Your task to perform on an android device: Open ESPN.com Image 0: 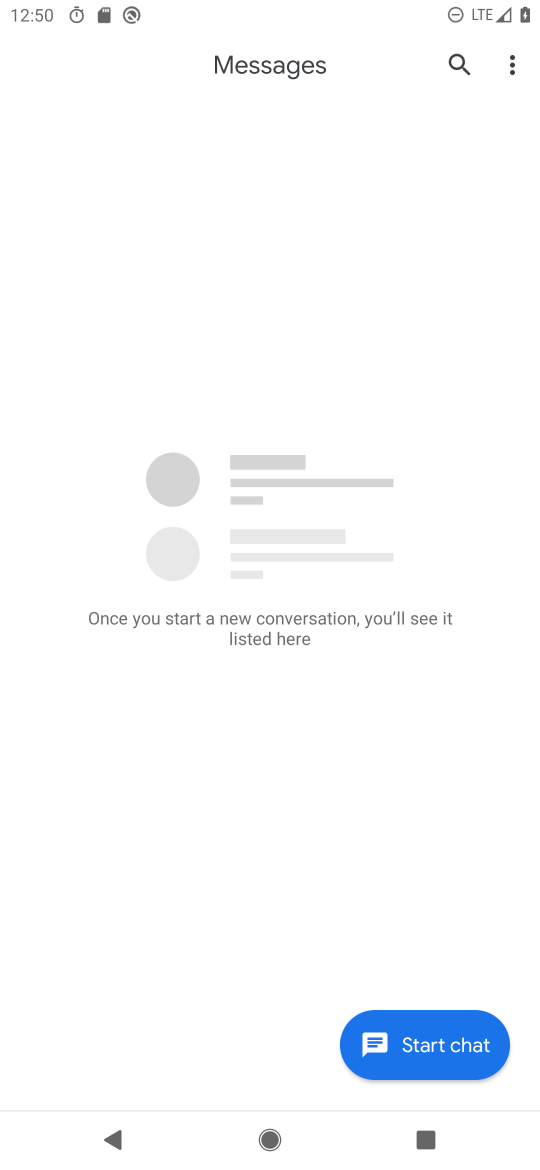
Step 0: press home button
Your task to perform on an android device: Open ESPN.com Image 1: 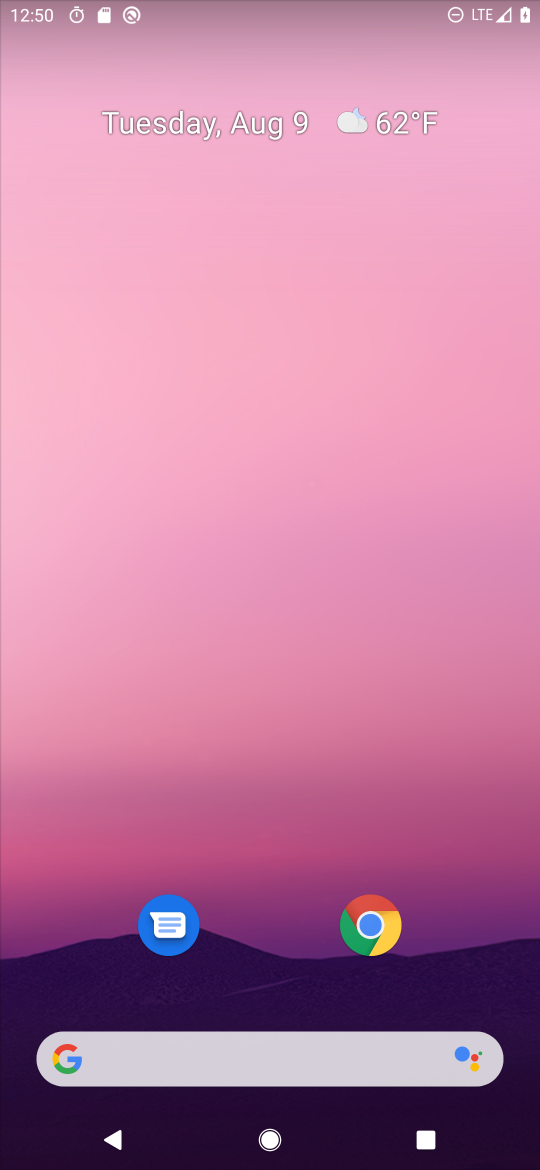
Step 1: drag from (347, 544) to (429, 45)
Your task to perform on an android device: Open ESPN.com Image 2: 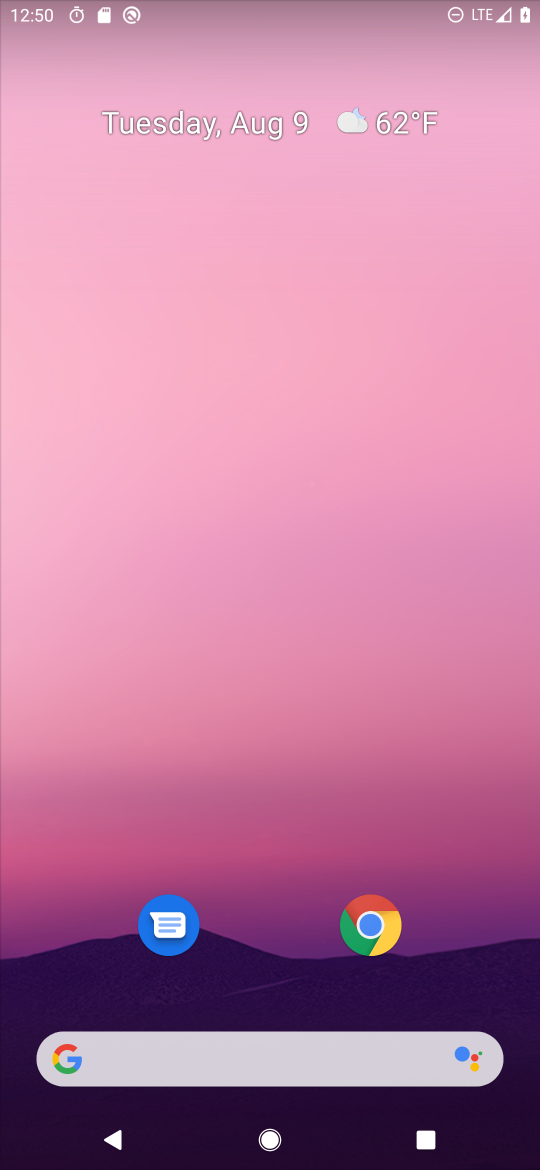
Step 2: drag from (245, 807) to (319, 209)
Your task to perform on an android device: Open ESPN.com Image 3: 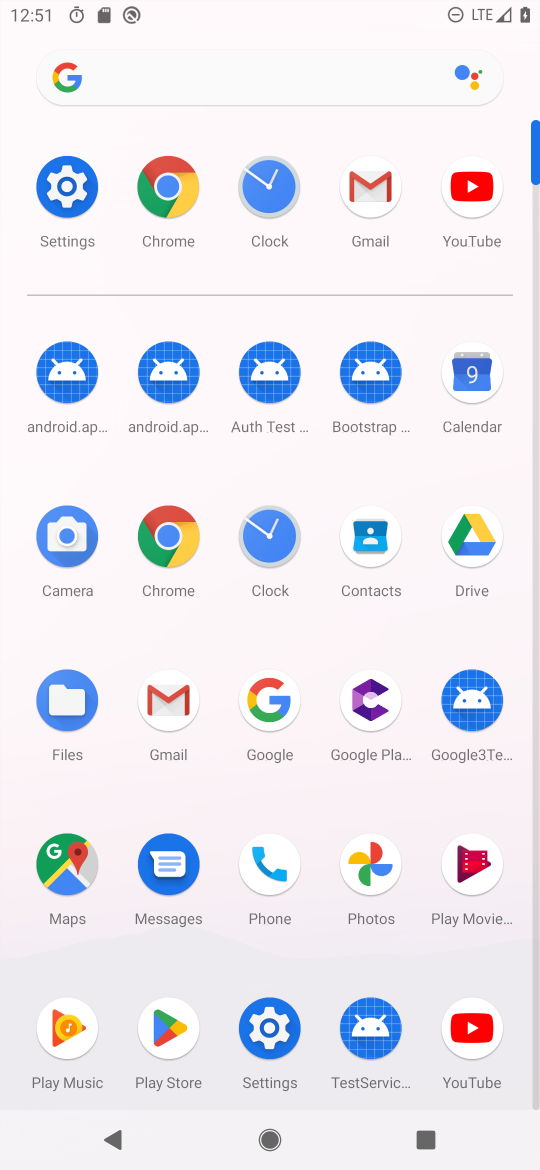
Step 3: click (173, 186)
Your task to perform on an android device: Open ESPN.com Image 4: 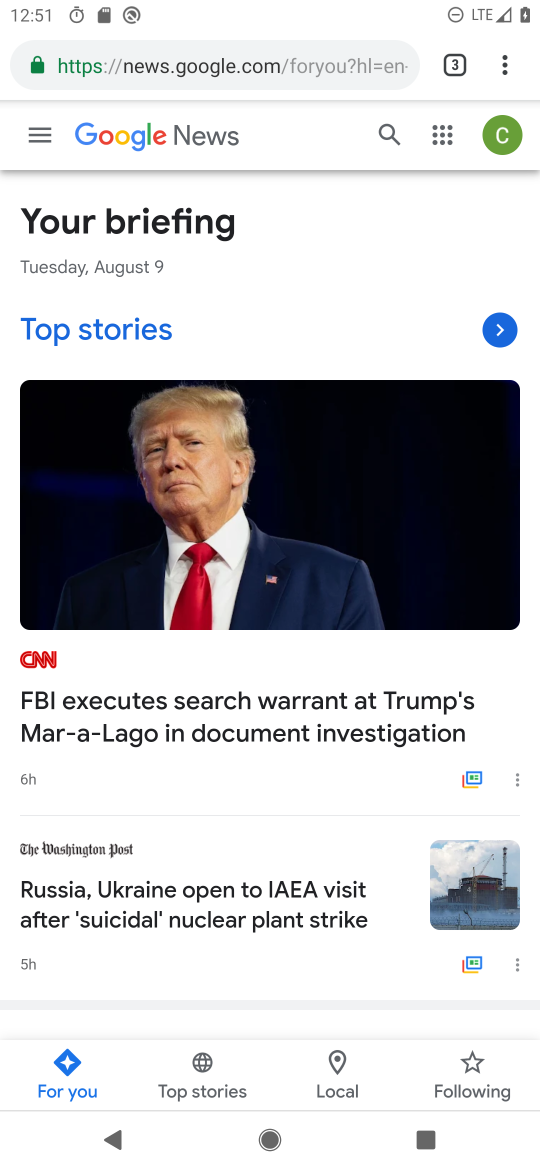
Step 4: click (274, 74)
Your task to perform on an android device: Open ESPN.com Image 5: 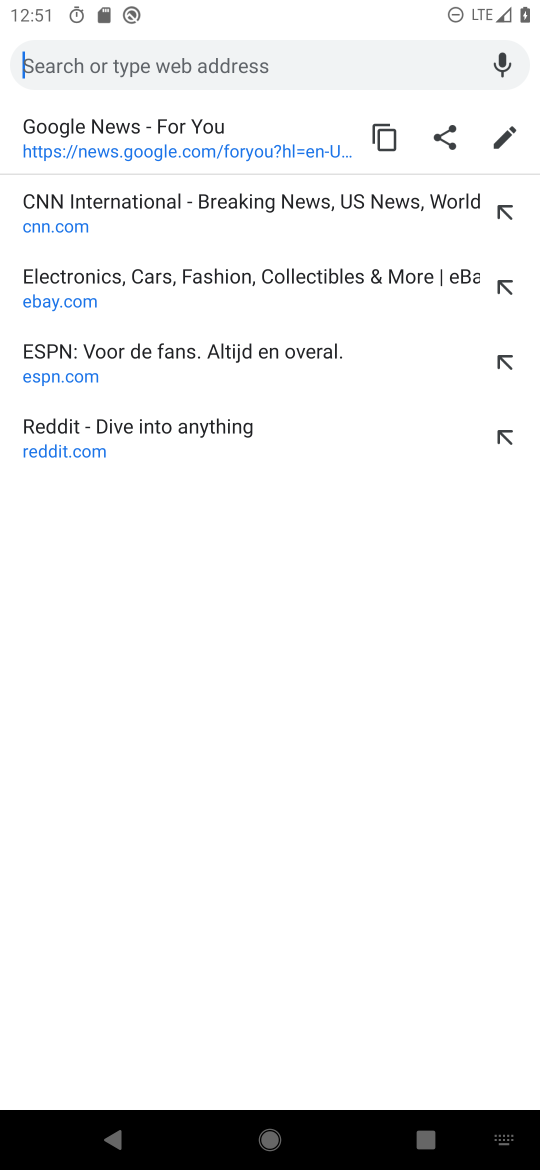
Step 5: click (82, 374)
Your task to perform on an android device: Open ESPN.com Image 6: 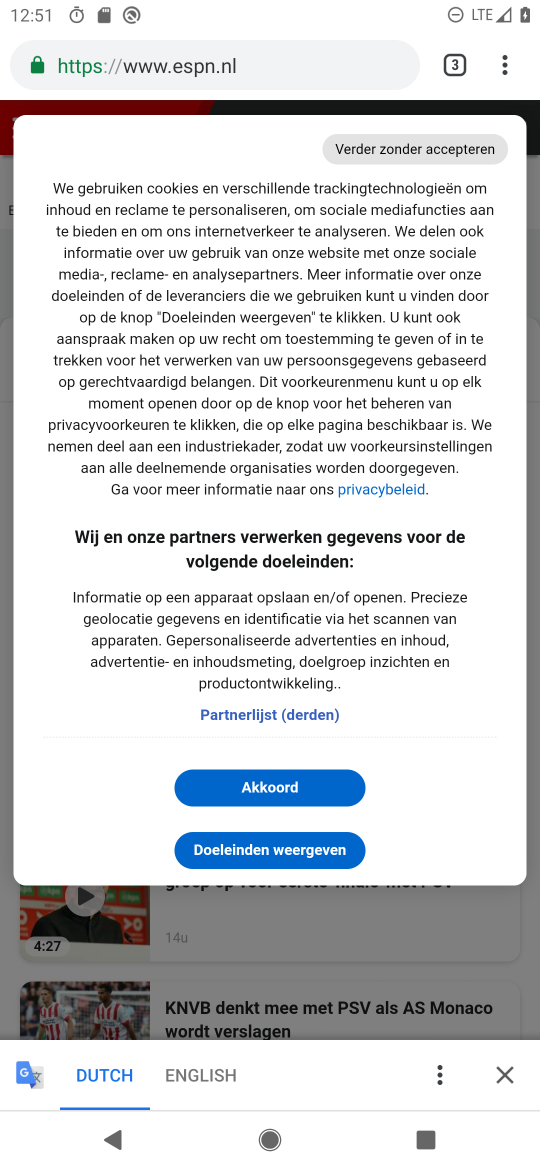
Step 6: task complete